Your task to perform on an android device: empty trash in the gmail app Image 0: 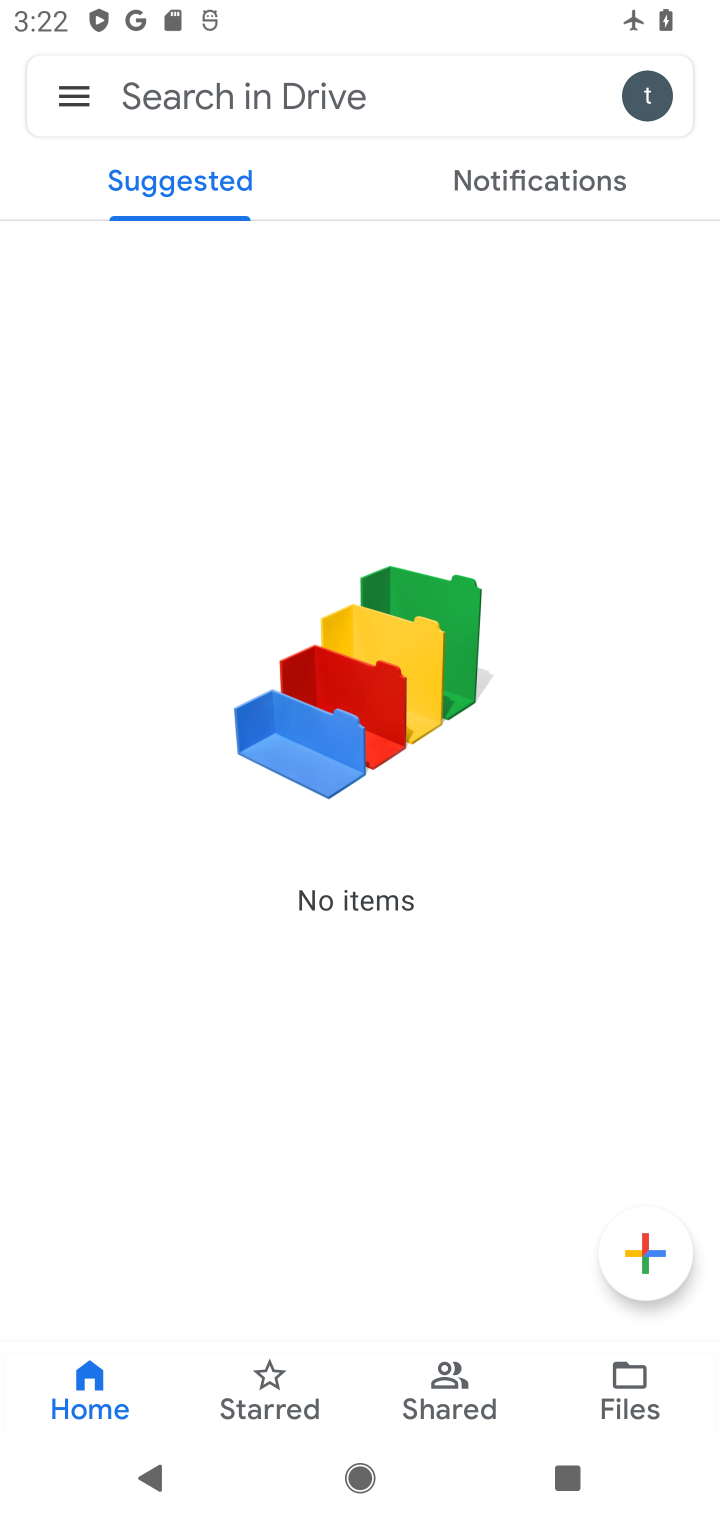
Step 0: press home button
Your task to perform on an android device: empty trash in the gmail app Image 1: 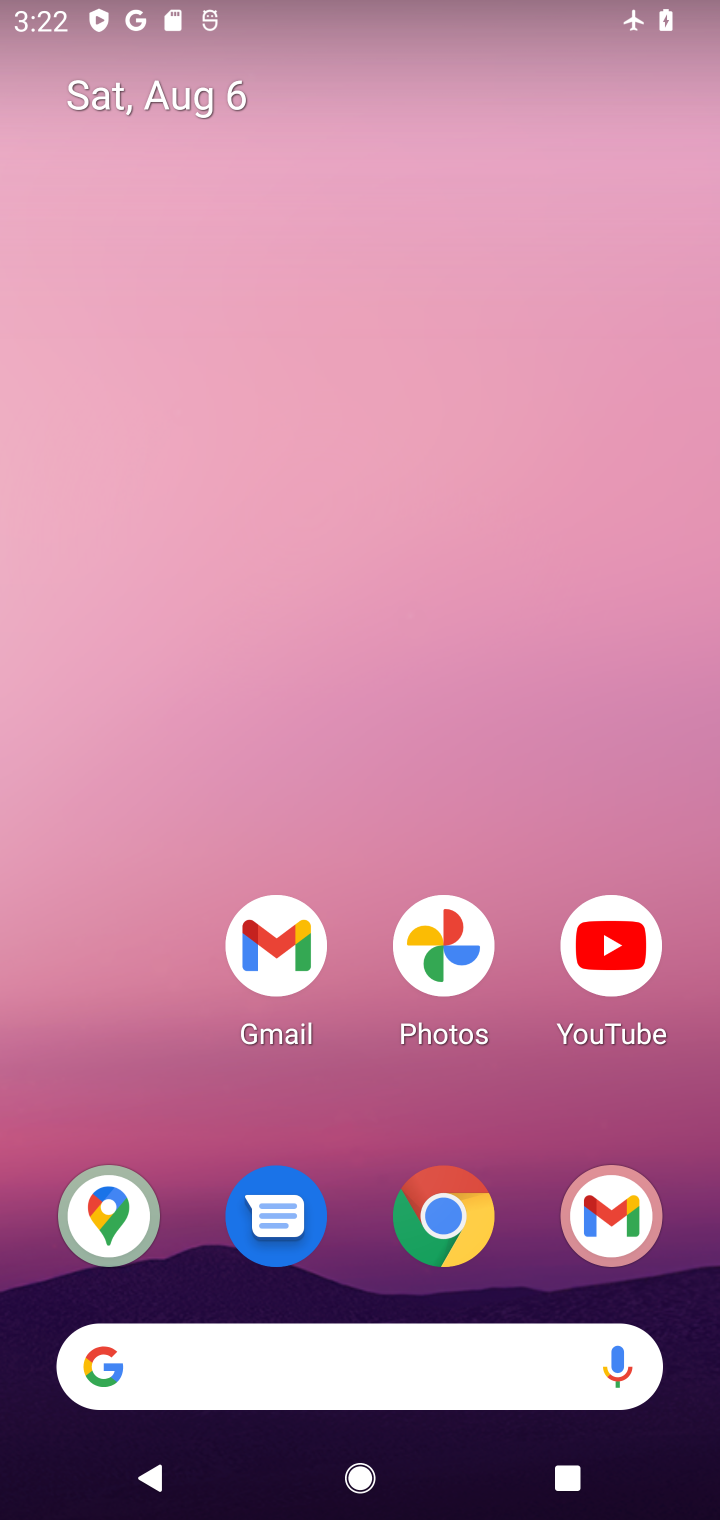
Step 1: click (262, 944)
Your task to perform on an android device: empty trash in the gmail app Image 2: 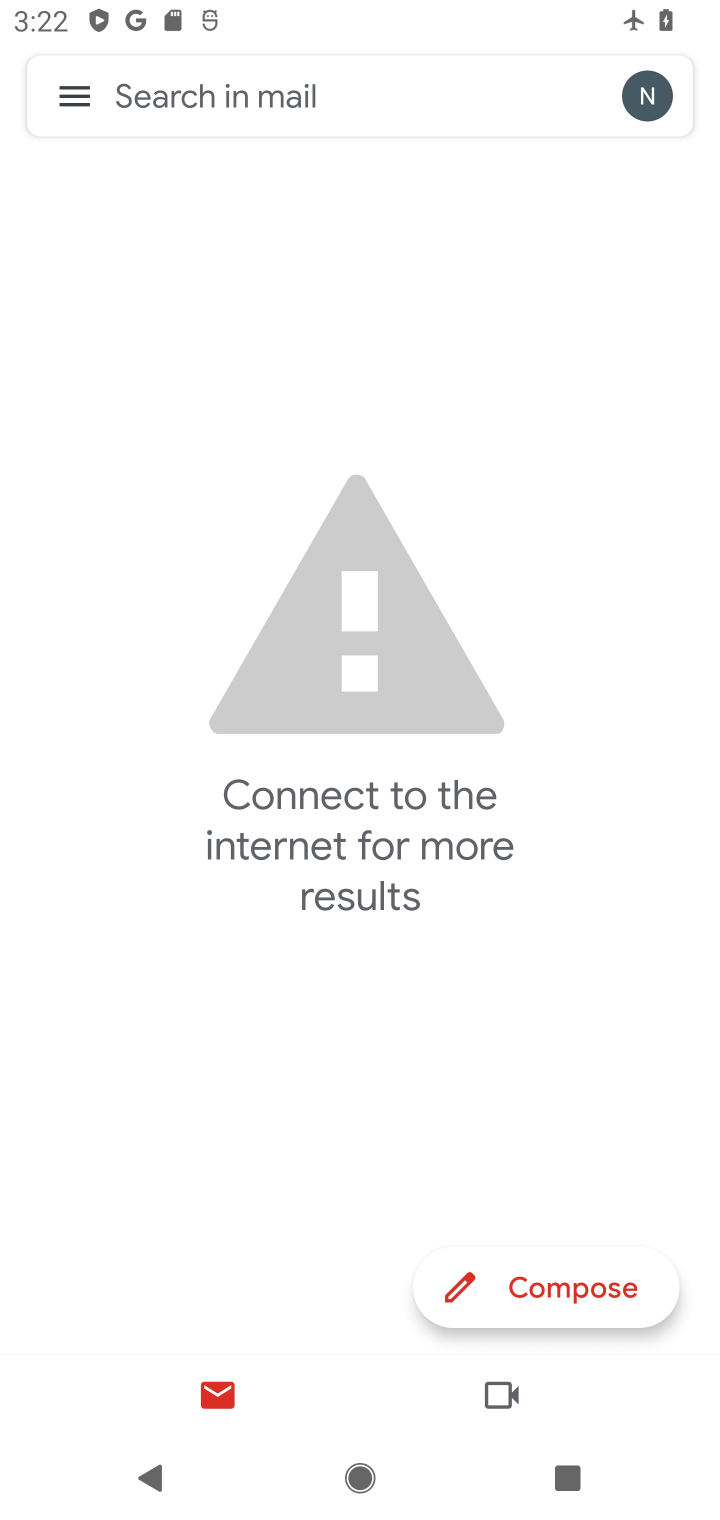
Step 2: click (79, 110)
Your task to perform on an android device: empty trash in the gmail app Image 3: 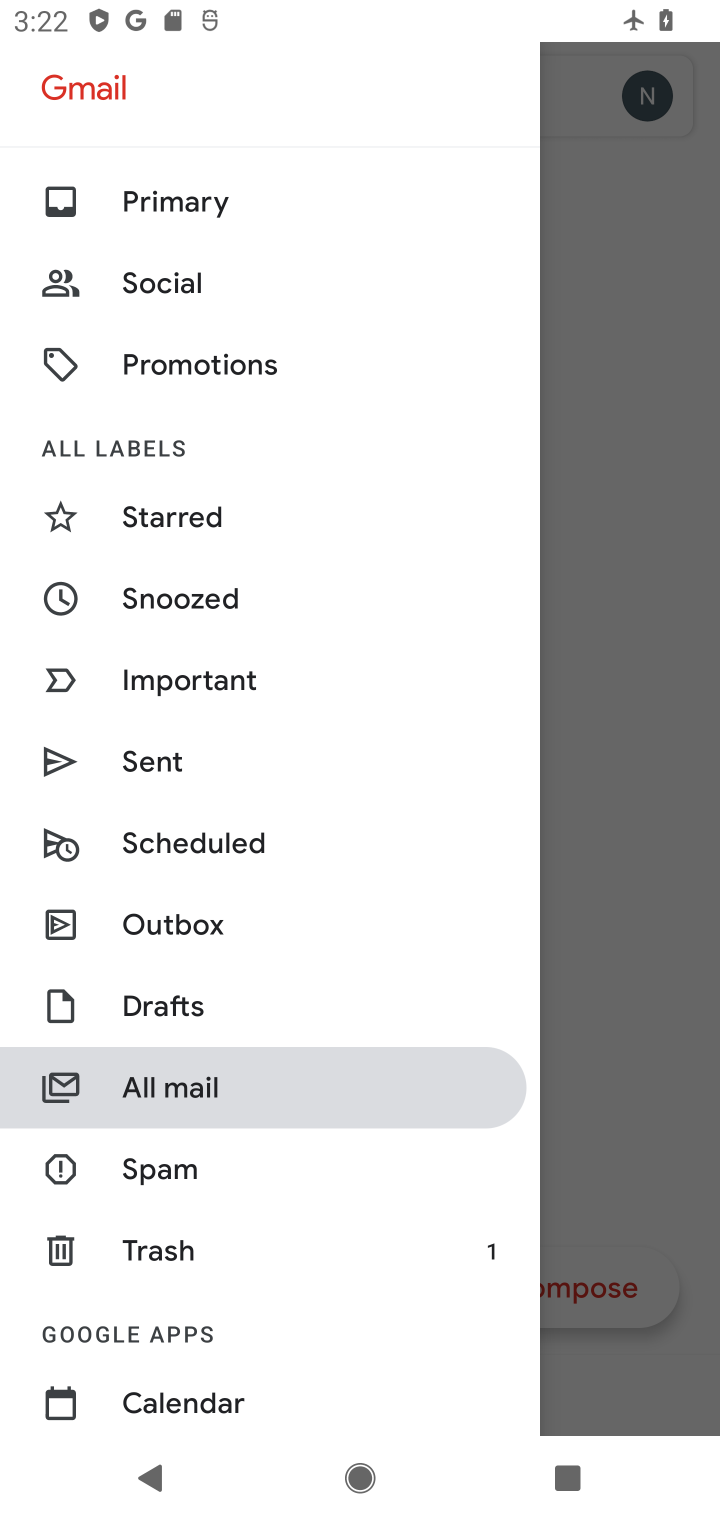
Step 3: click (178, 1272)
Your task to perform on an android device: empty trash in the gmail app Image 4: 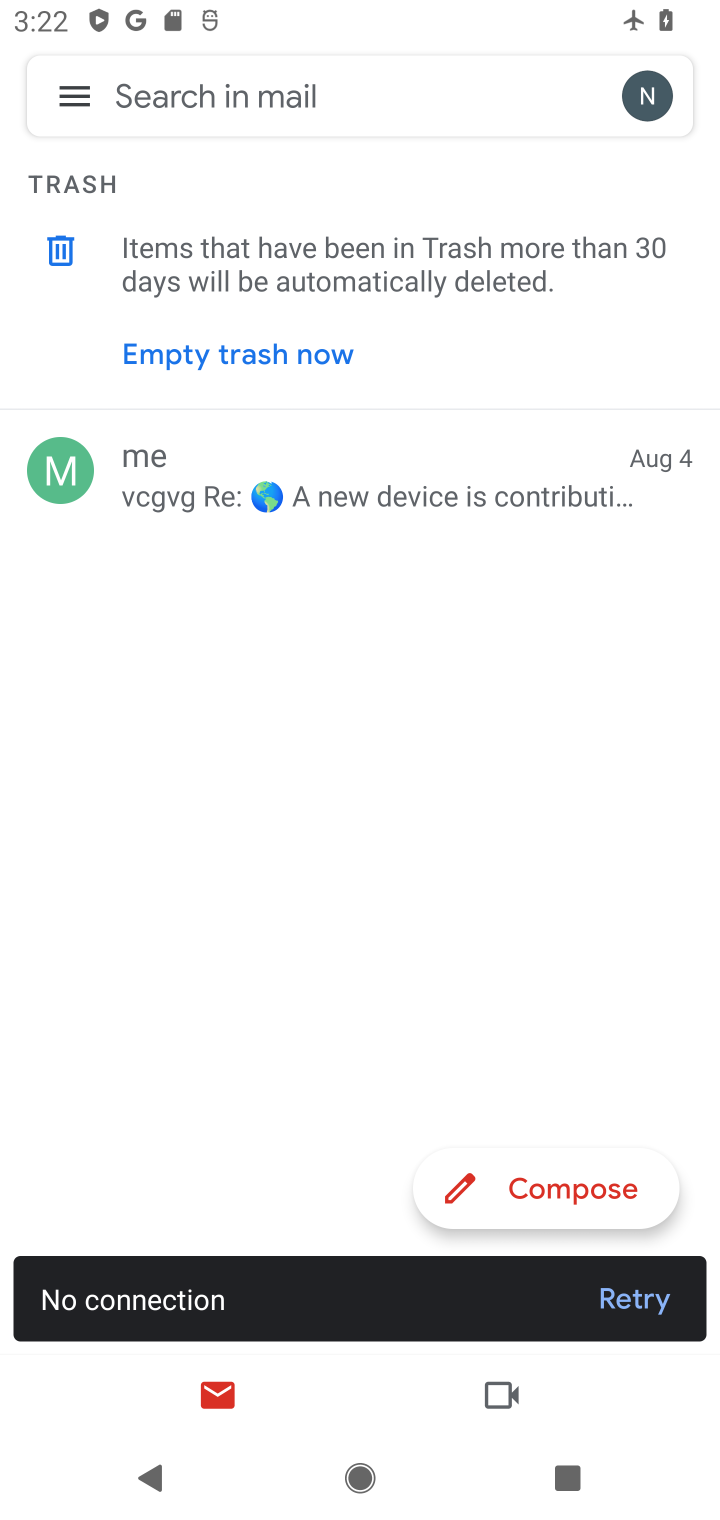
Step 4: click (181, 343)
Your task to perform on an android device: empty trash in the gmail app Image 5: 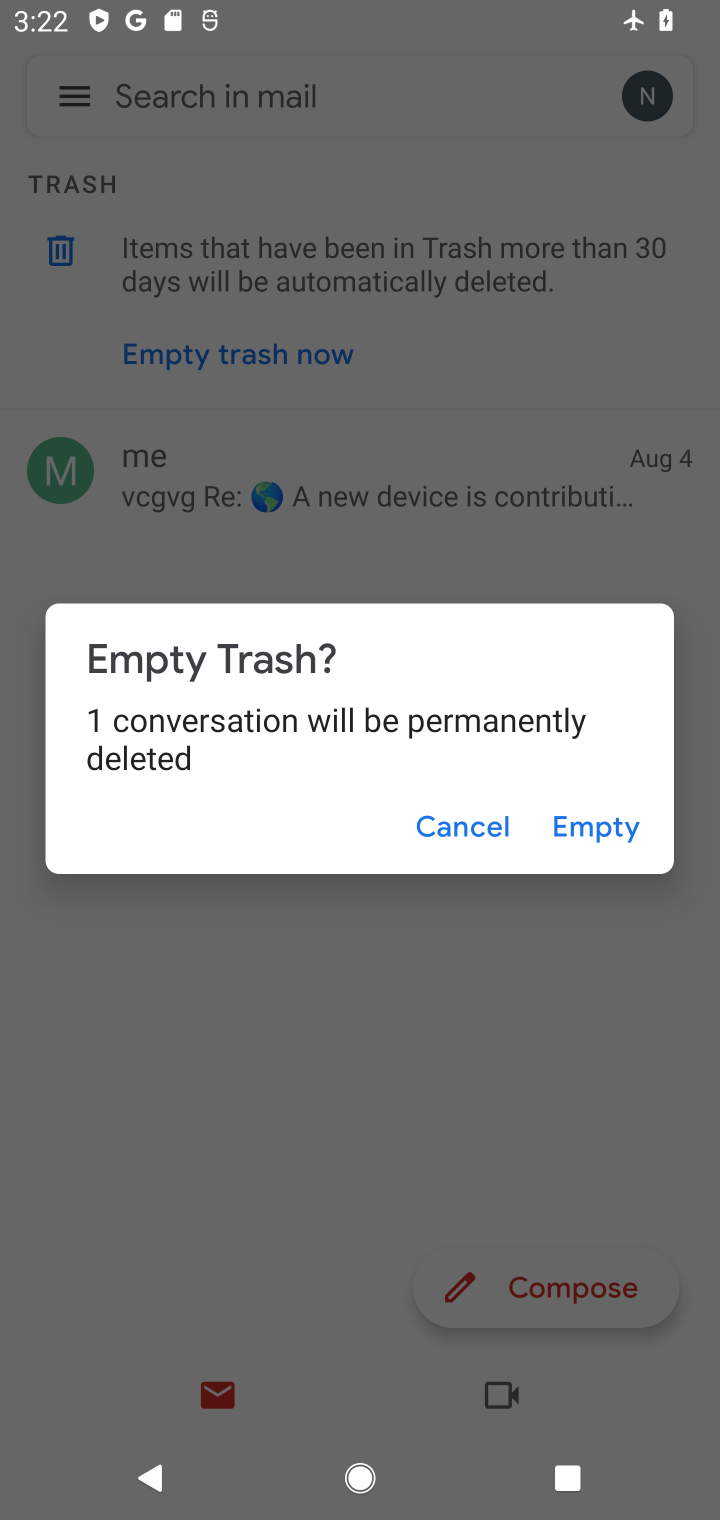
Step 5: click (590, 852)
Your task to perform on an android device: empty trash in the gmail app Image 6: 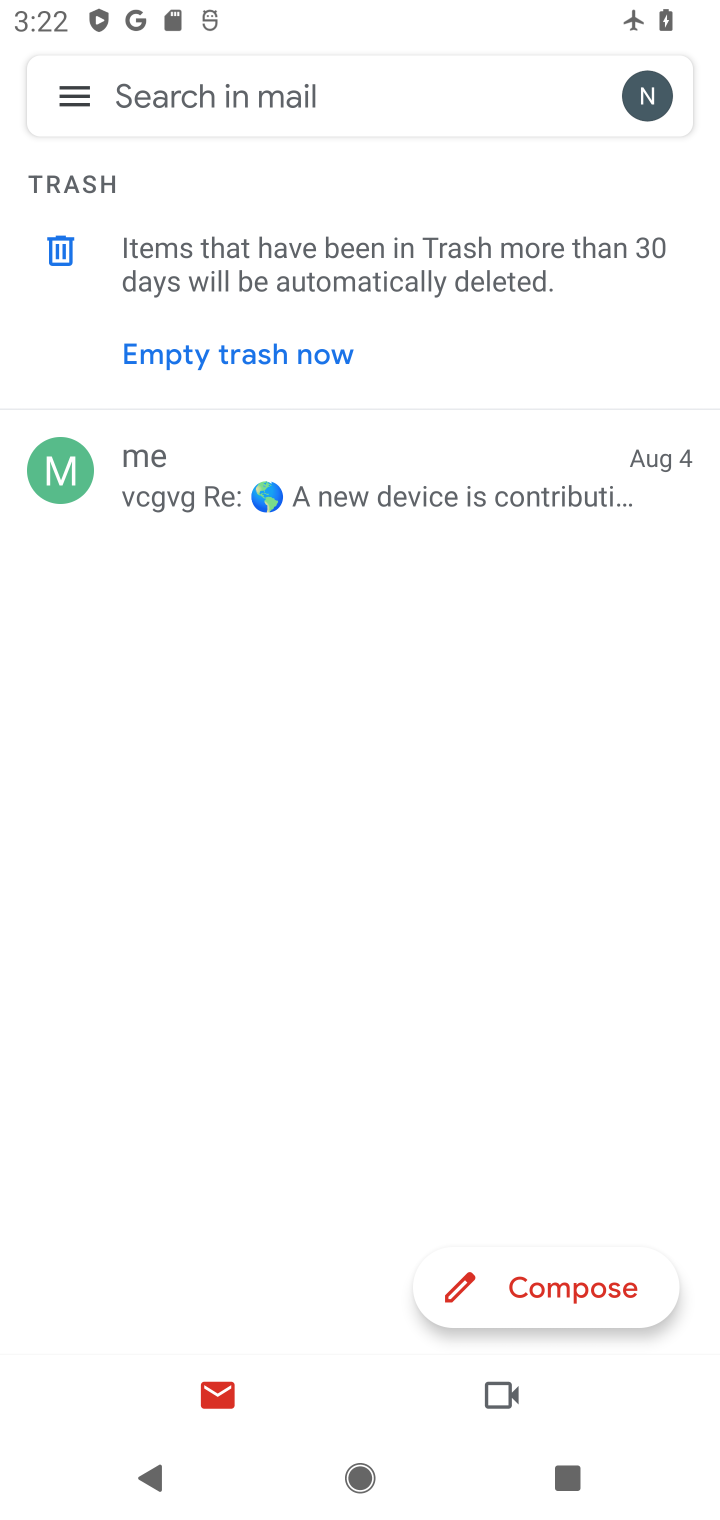
Step 6: task complete